Your task to perform on an android device: allow notifications from all sites in the chrome app Image 0: 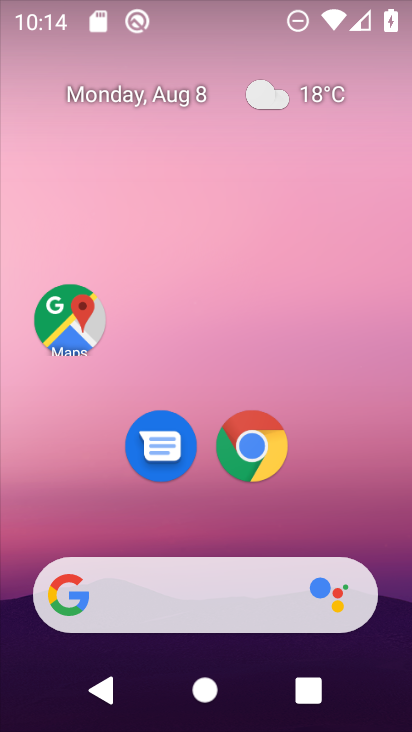
Step 0: click (255, 443)
Your task to perform on an android device: allow notifications from all sites in the chrome app Image 1: 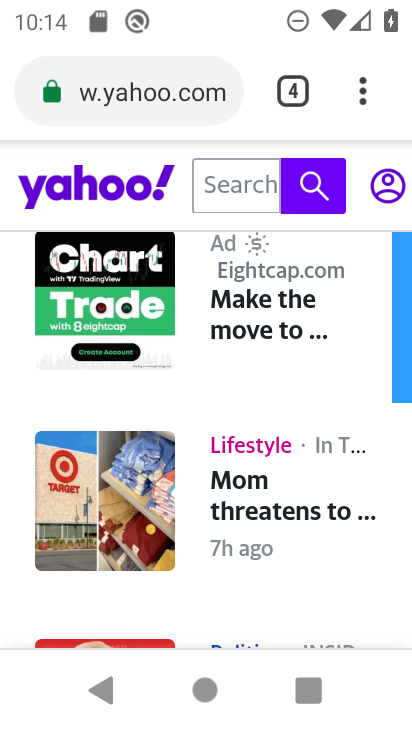
Step 1: click (355, 103)
Your task to perform on an android device: allow notifications from all sites in the chrome app Image 2: 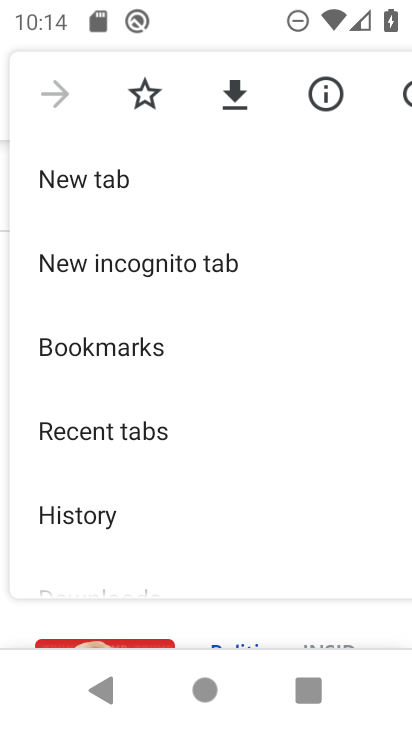
Step 2: drag from (208, 539) to (266, 169)
Your task to perform on an android device: allow notifications from all sites in the chrome app Image 3: 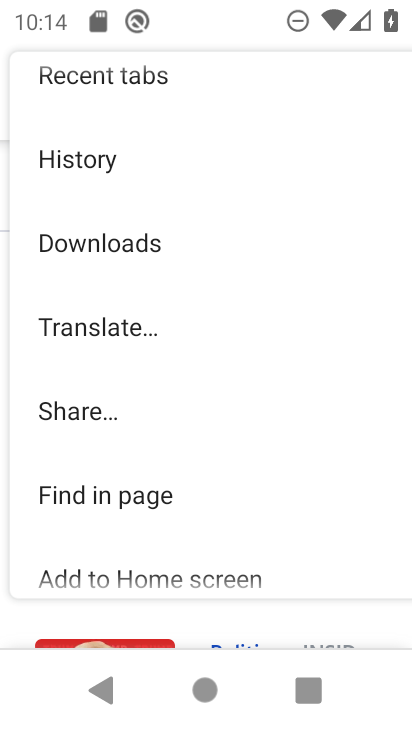
Step 3: drag from (307, 437) to (306, 298)
Your task to perform on an android device: allow notifications from all sites in the chrome app Image 4: 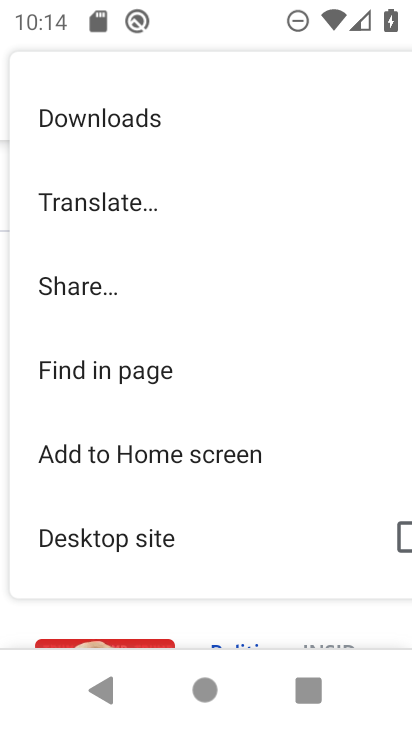
Step 4: drag from (237, 539) to (285, 143)
Your task to perform on an android device: allow notifications from all sites in the chrome app Image 5: 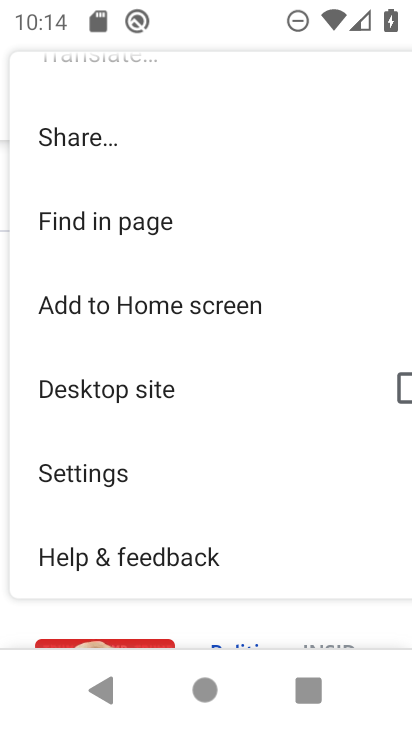
Step 5: click (98, 468)
Your task to perform on an android device: allow notifications from all sites in the chrome app Image 6: 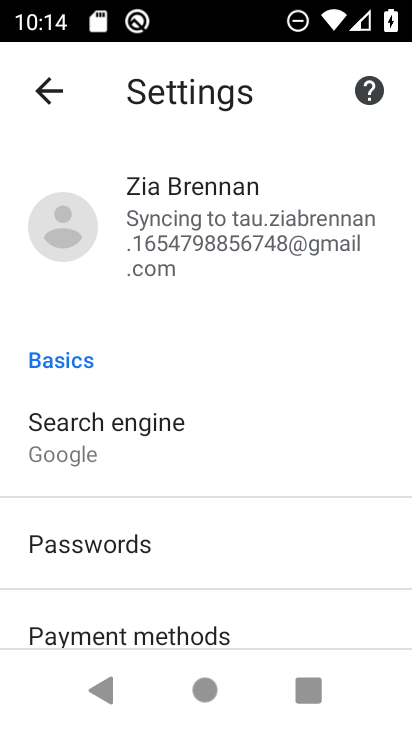
Step 6: drag from (245, 569) to (264, 303)
Your task to perform on an android device: allow notifications from all sites in the chrome app Image 7: 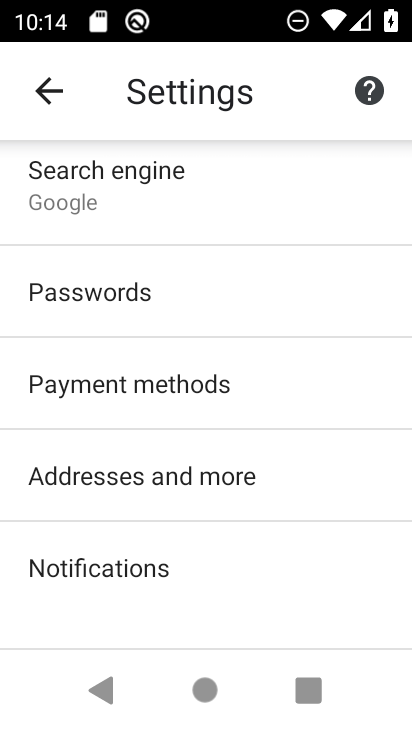
Step 7: drag from (261, 562) to (267, 267)
Your task to perform on an android device: allow notifications from all sites in the chrome app Image 8: 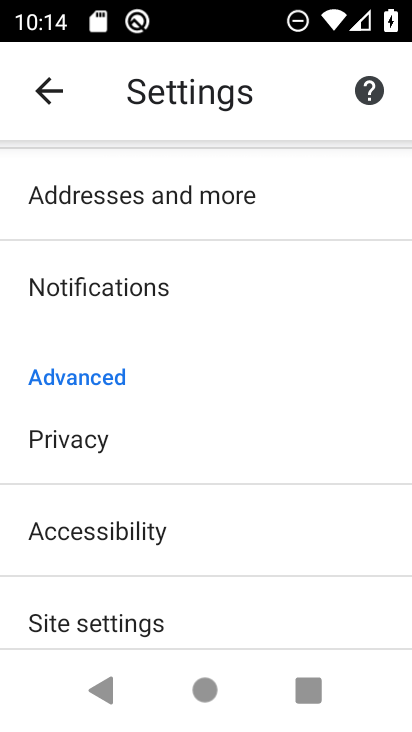
Step 8: drag from (227, 585) to (238, 307)
Your task to perform on an android device: allow notifications from all sites in the chrome app Image 9: 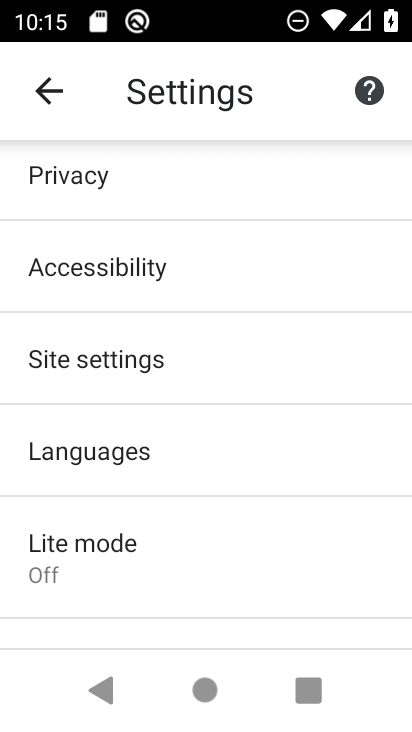
Step 9: click (90, 363)
Your task to perform on an android device: allow notifications from all sites in the chrome app Image 10: 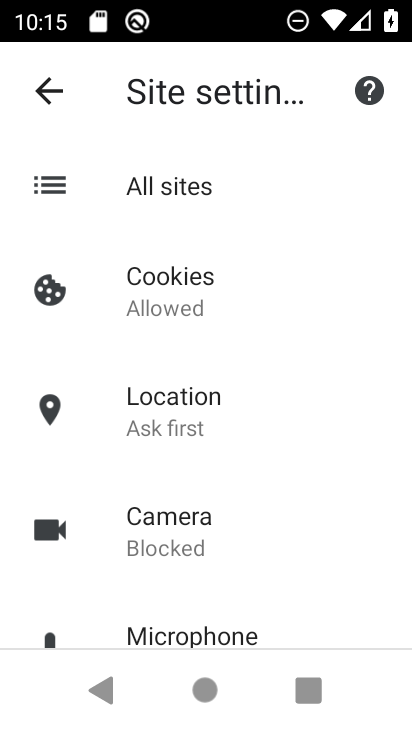
Step 10: drag from (293, 432) to (300, 267)
Your task to perform on an android device: allow notifications from all sites in the chrome app Image 11: 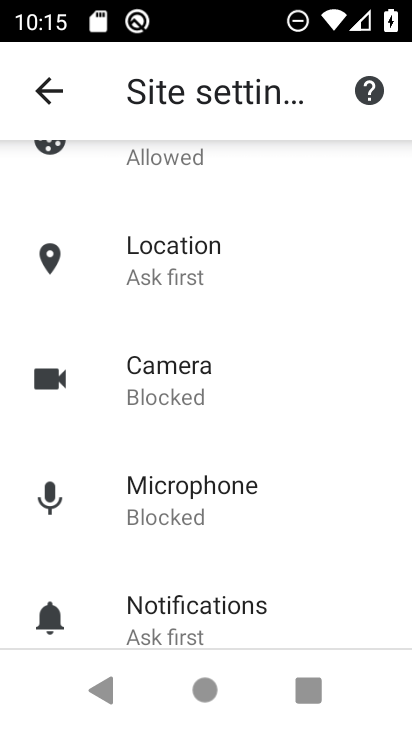
Step 11: drag from (291, 606) to (268, 249)
Your task to perform on an android device: allow notifications from all sites in the chrome app Image 12: 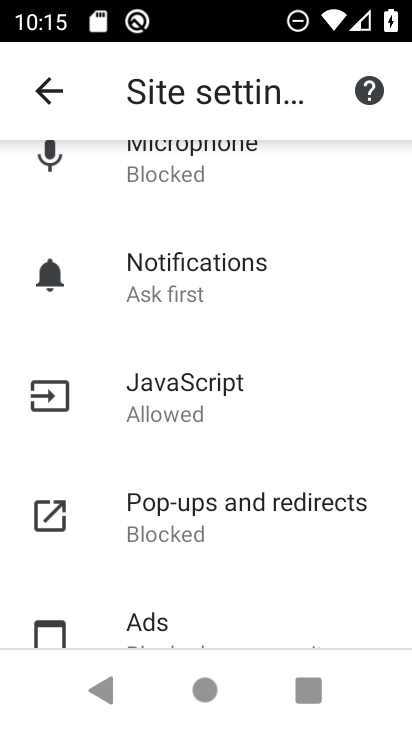
Step 12: click (181, 281)
Your task to perform on an android device: allow notifications from all sites in the chrome app Image 13: 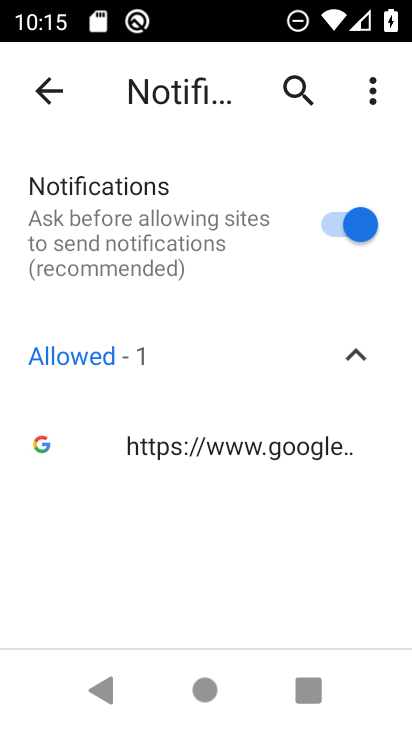
Step 13: task complete